Your task to perform on an android device: add a contact Image 0: 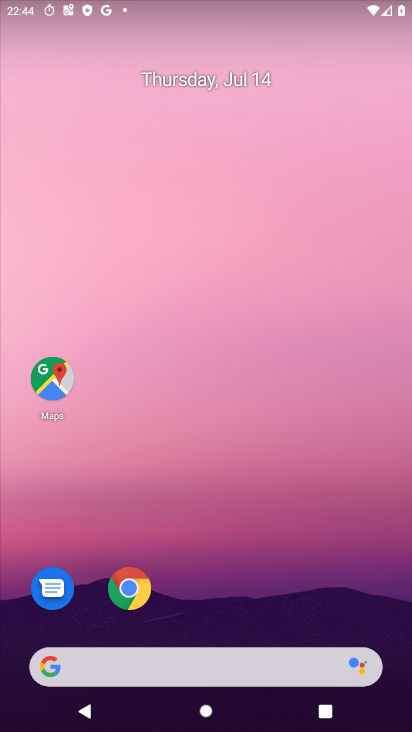
Step 0: drag from (307, 604) to (372, 24)
Your task to perform on an android device: add a contact Image 1: 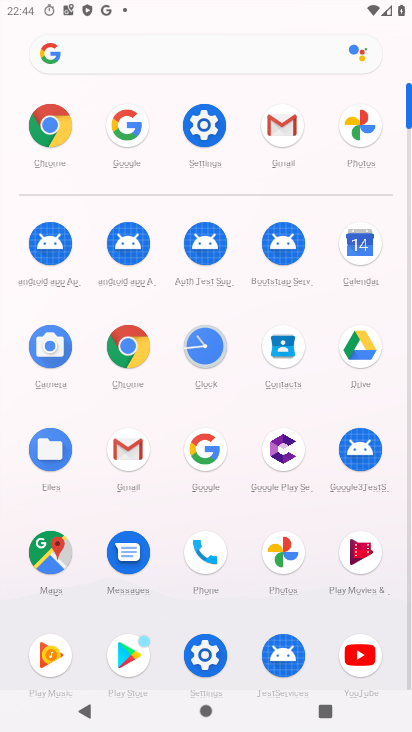
Step 1: click (284, 348)
Your task to perform on an android device: add a contact Image 2: 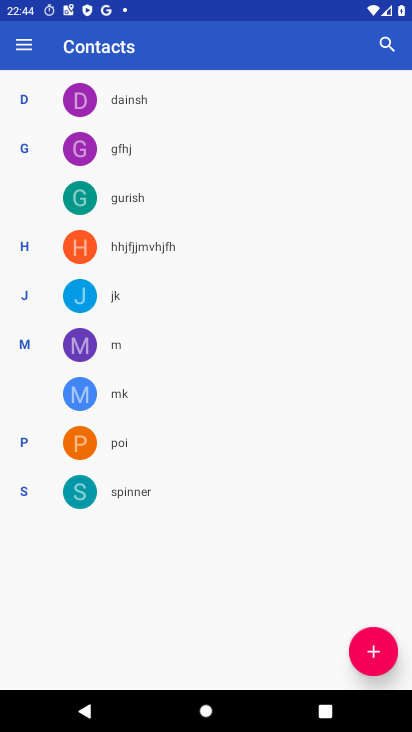
Step 2: click (372, 651)
Your task to perform on an android device: add a contact Image 3: 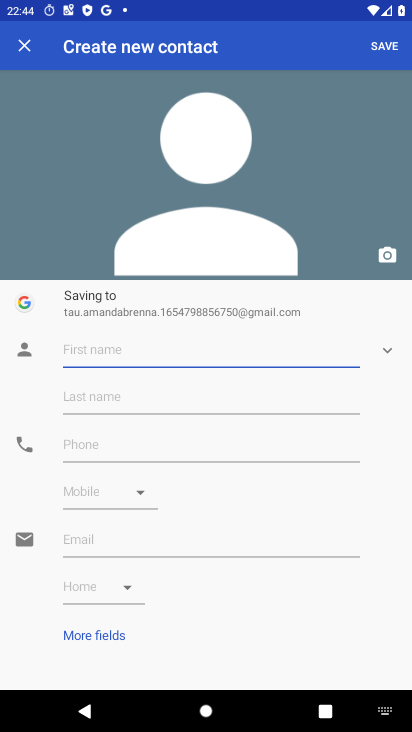
Step 3: type "mhjjghfhjf"
Your task to perform on an android device: add a contact Image 4: 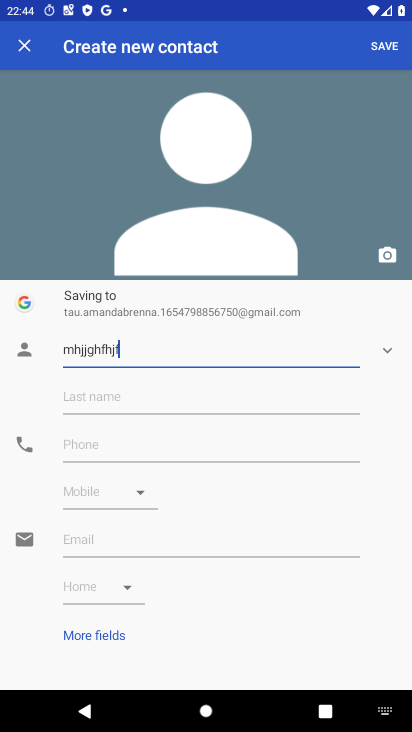
Step 4: click (180, 449)
Your task to perform on an android device: add a contact Image 5: 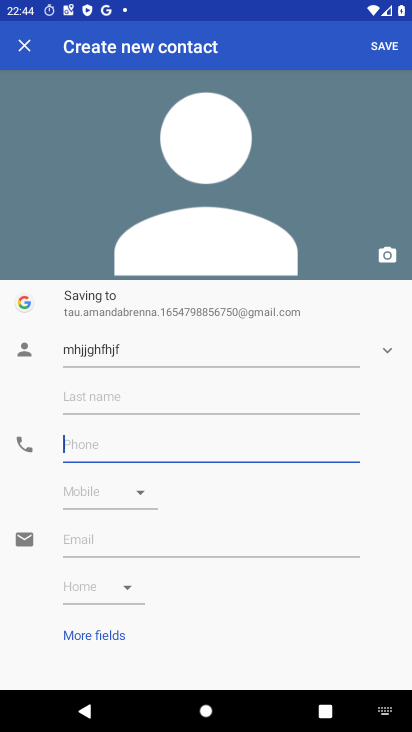
Step 5: type "87578467464"
Your task to perform on an android device: add a contact Image 6: 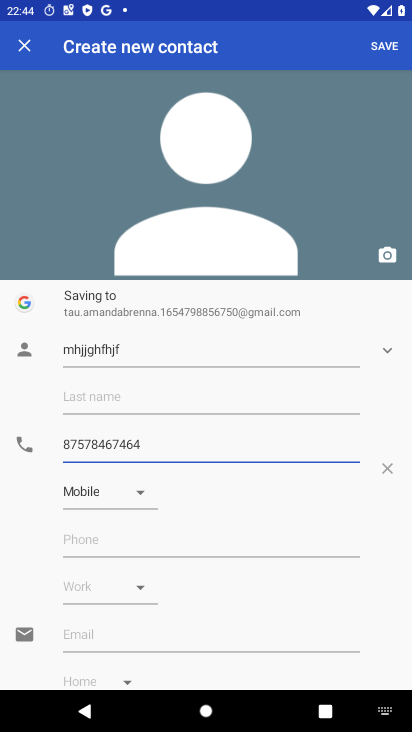
Step 6: click (385, 42)
Your task to perform on an android device: add a contact Image 7: 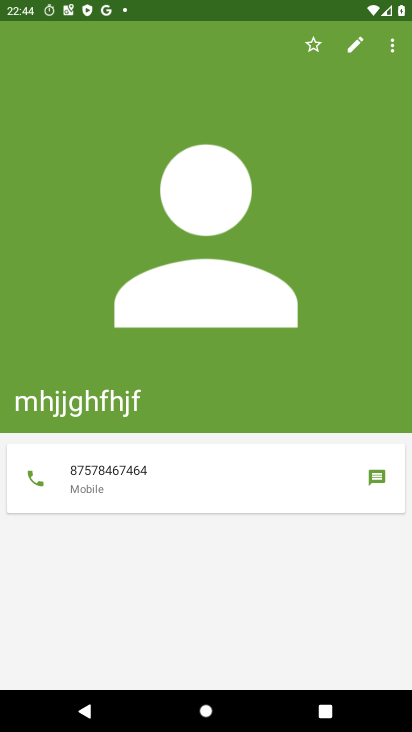
Step 7: task complete